Your task to perform on an android device: turn pop-ups off in chrome Image 0: 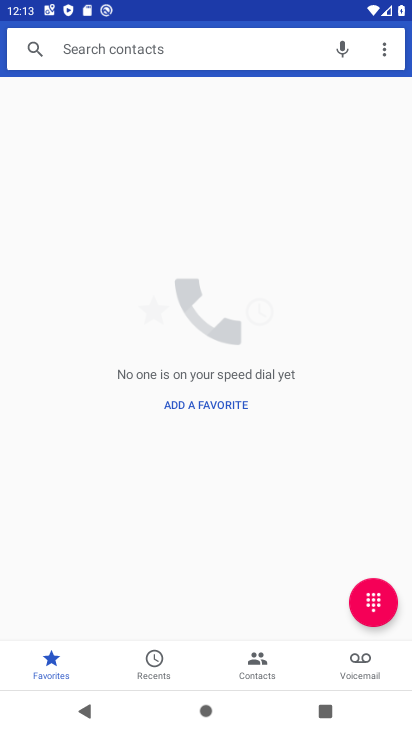
Step 0: press home button
Your task to perform on an android device: turn pop-ups off in chrome Image 1: 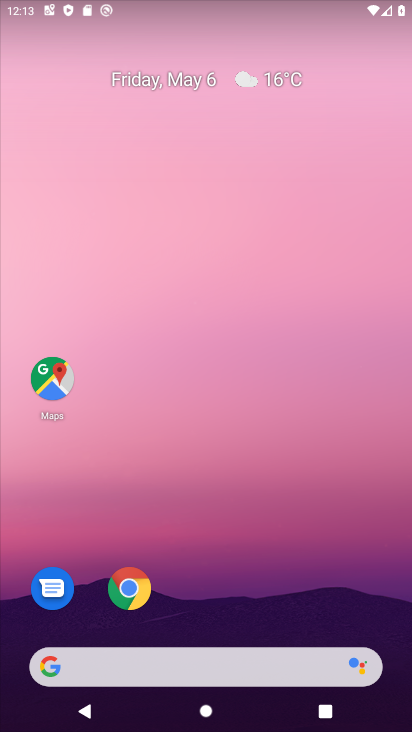
Step 1: drag from (262, 526) to (305, 71)
Your task to perform on an android device: turn pop-ups off in chrome Image 2: 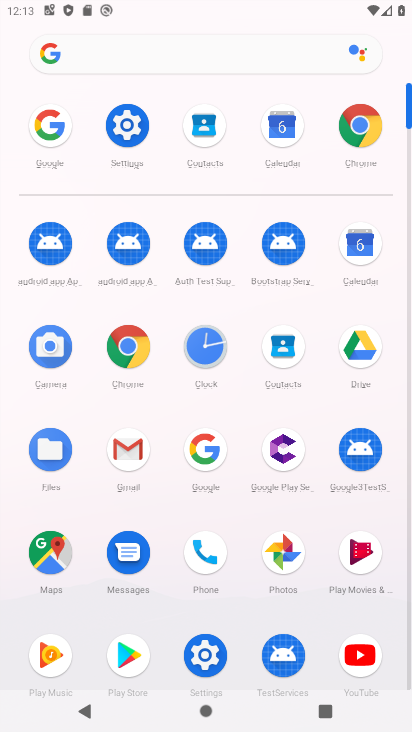
Step 2: click (359, 125)
Your task to perform on an android device: turn pop-ups off in chrome Image 3: 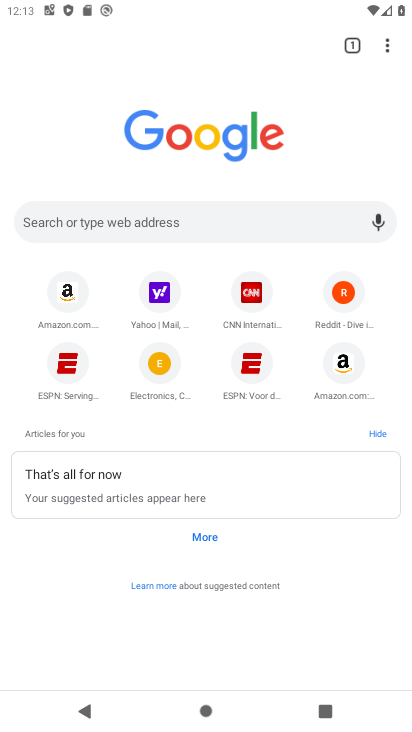
Step 3: drag from (388, 49) to (361, 103)
Your task to perform on an android device: turn pop-ups off in chrome Image 4: 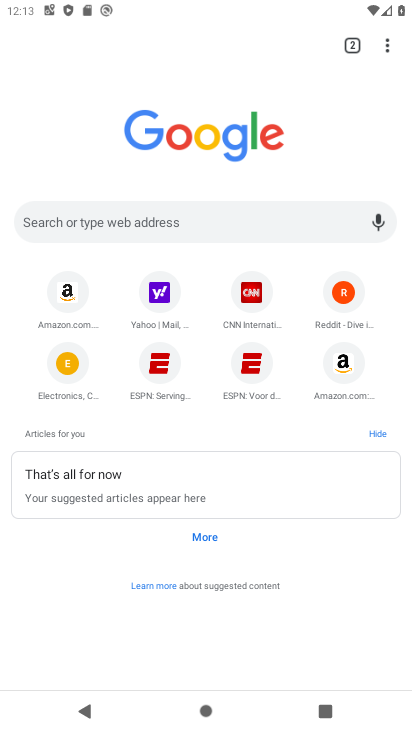
Step 4: drag from (385, 48) to (294, 382)
Your task to perform on an android device: turn pop-ups off in chrome Image 5: 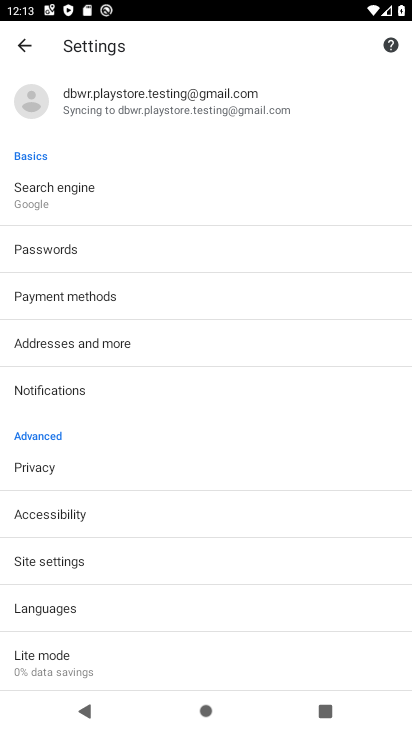
Step 5: click (163, 556)
Your task to perform on an android device: turn pop-ups off in chrome Image 6: 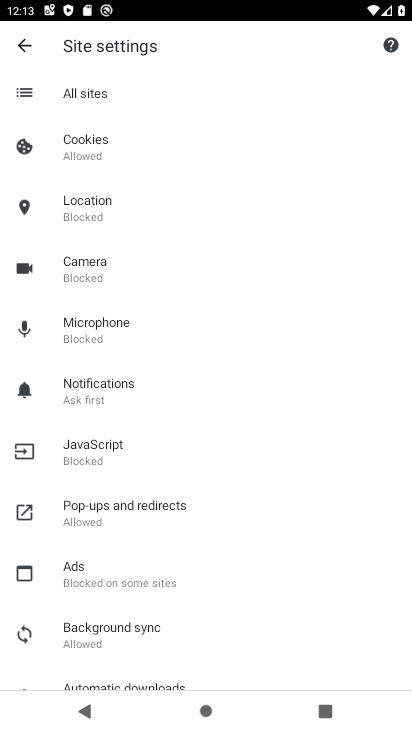
Step 6: click (185, 513)
Your task to perform on an android device: turn pop-ups off in chrome Image 7: 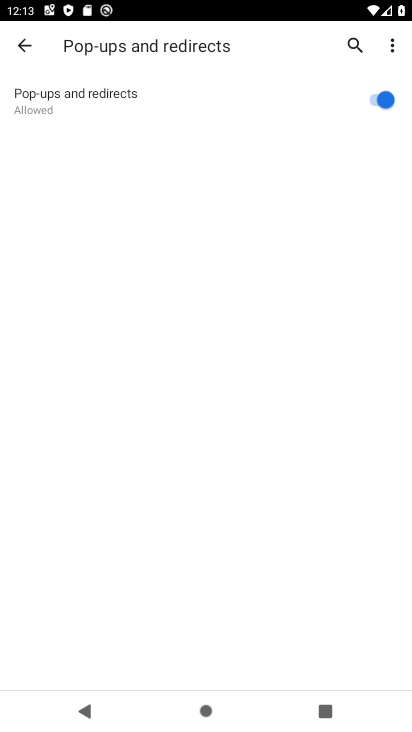
Step 7: click (371, 91)
Your task to perform on an android device: turn pop-ups off in chrome Image 8: 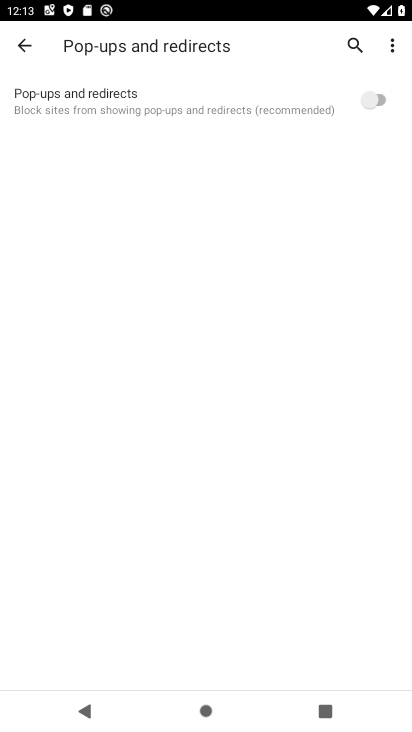
Step 8: task complete